Your task to perform on an android device: toggle data saver in the chrome app Image 0: 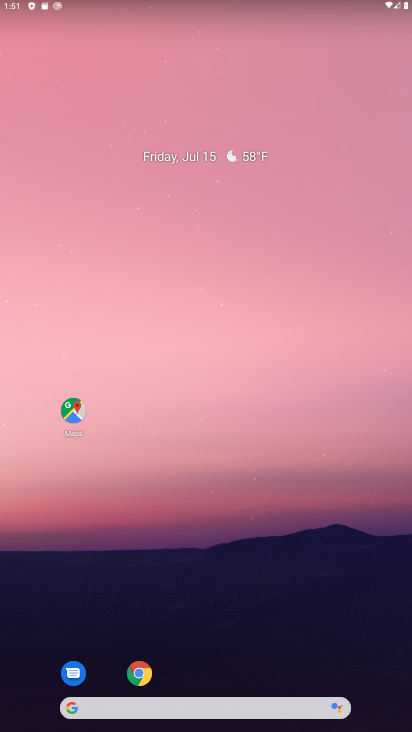
Step 0: click (137, 668)
Your task to perform on an android device: toggle data saver in the chrome app Image 1: 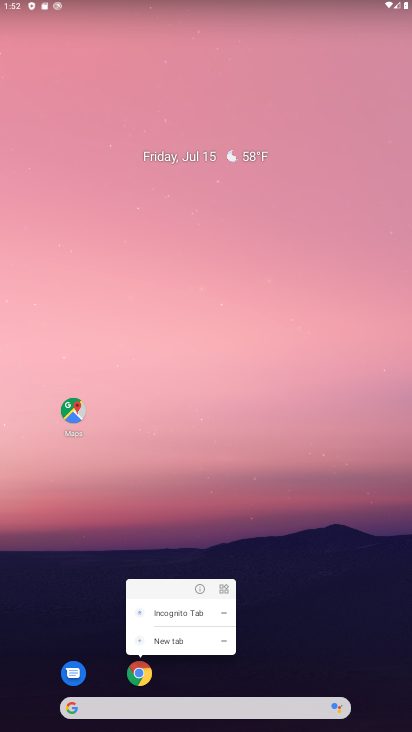
Step 1: click (136, 675)
Your task to perform on an android device: toggle data saver in the chrome app Image 2: 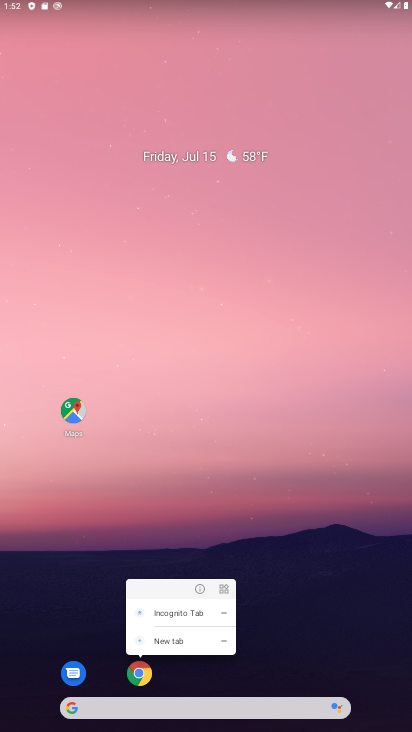
Step 2: click (137, 666)
Your task to perform on an android device: toggle data saver in the chrome app Image 3: 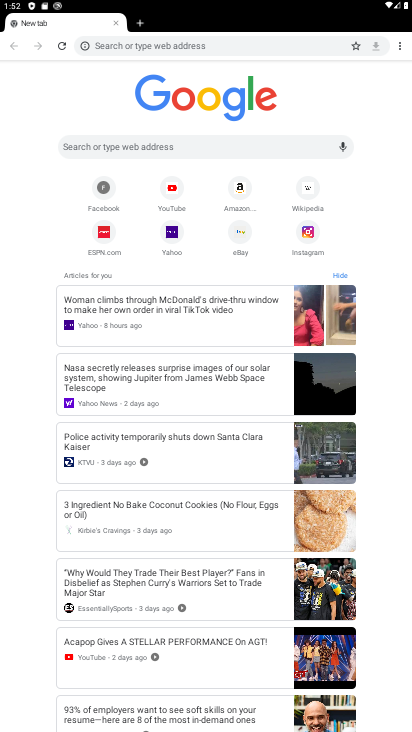
Step 3: click (400, 44)
Your task to perform on an android device: toggle data saver in the chrome app Image 4: 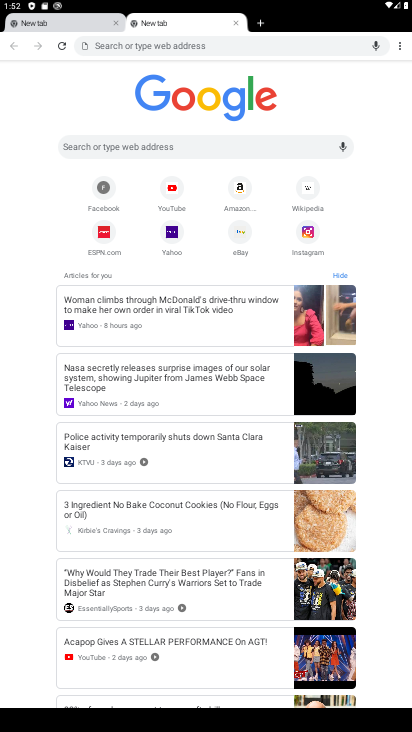
Step 4: click (398, 47)
Your task to perform on an android device: toggle data saver in the chrome app Image 5: 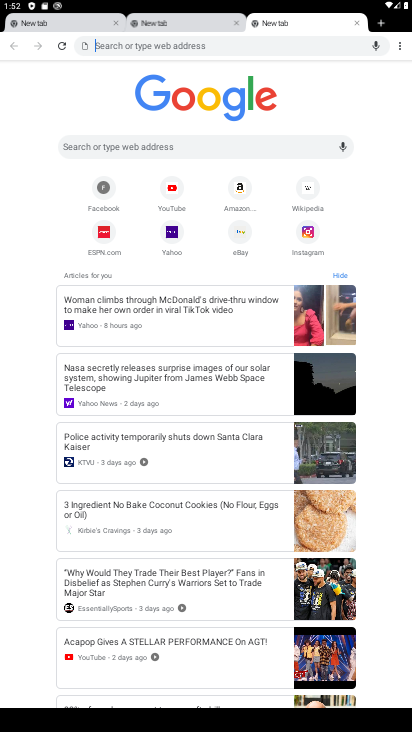
Step 5: click (397, 43)
Your task to perform on an android device: toggle data saver in the chrome app Image 6: 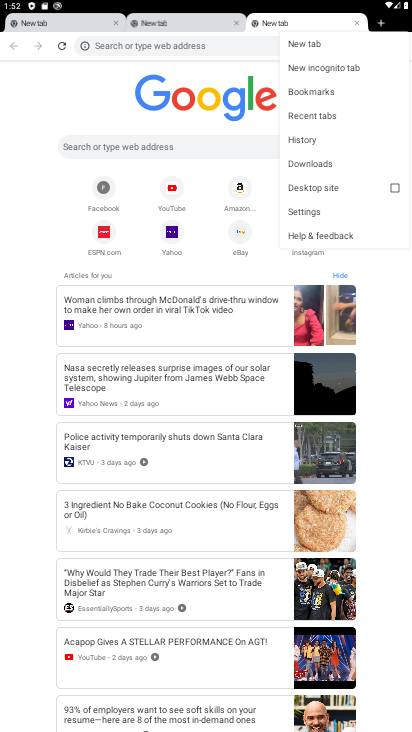
Step 6: click (316, 215)
Your task to perform on an android device: toggle data saver in the chrome app Image 7: 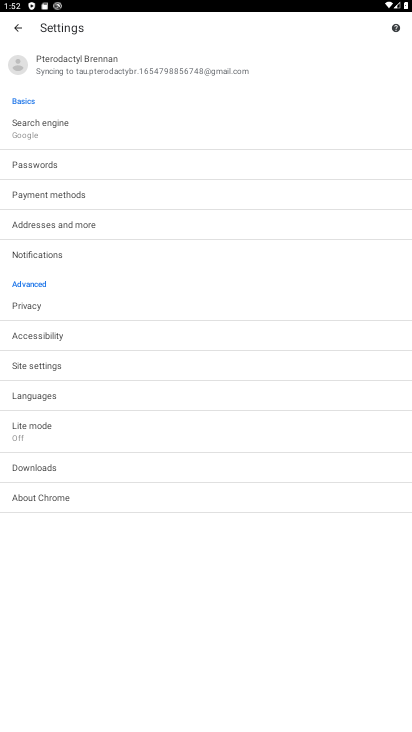
Step 7: click (58, 426)
Your task to perform on an android device: toggle data saver in the chrome app Image 8: 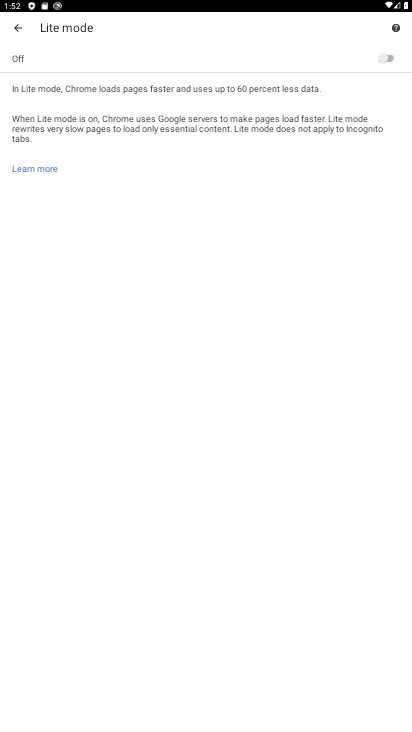
Step 8: click (397, 55)
Your task to perform on an android device: toggle data saver in the chrome app Image 9: 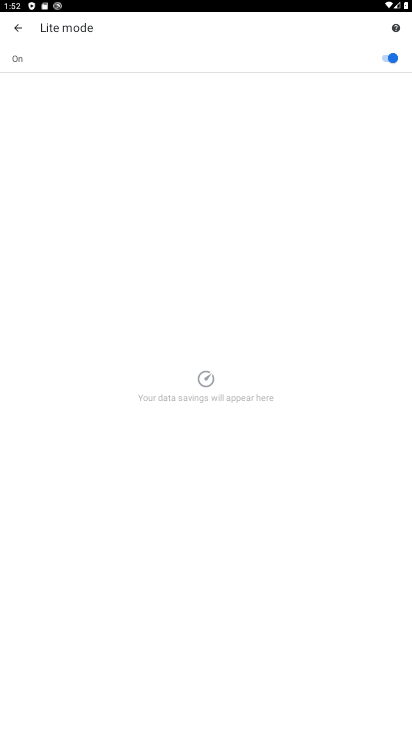
Step 9: task complete